Your task to perform on an android device: Go to location settings Image 0: 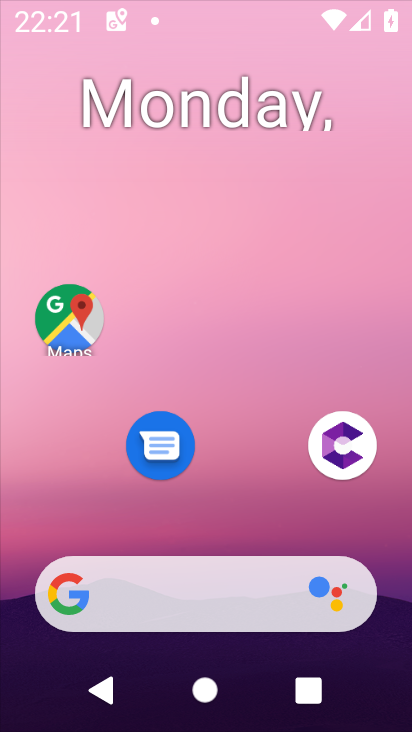
Step 0: press home button
Your task to perform on an android device: Go to location settings Image 1: 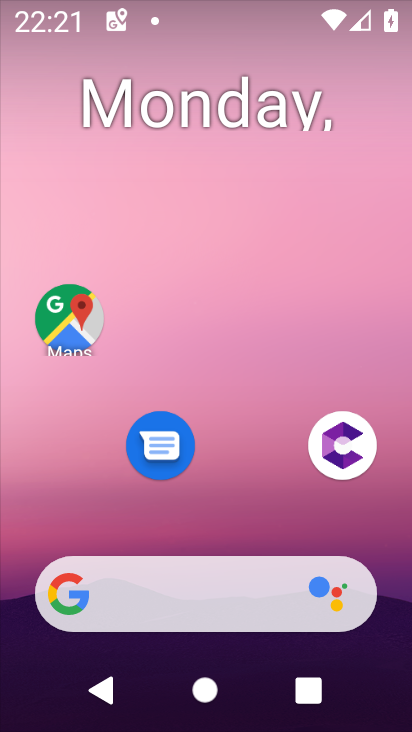
Step 1: drag from (225, 541) to (232, 181)
Your task to perform on an android device: Go to location settings Image 2: 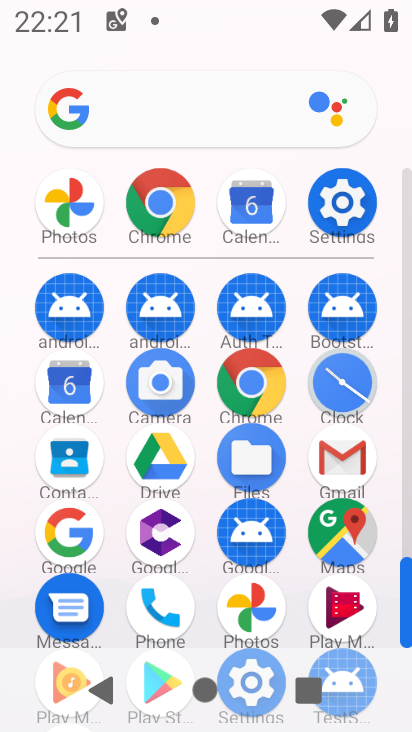
Step 2: click (340, 213)
Your task to perform on an android device: Go to location settings Image 3: 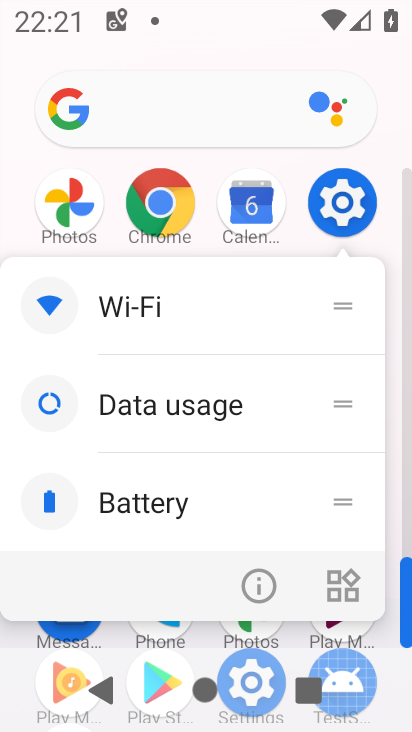
Step 3: click (340, 214)
Your task to perform on an android device: Go to location settings Image 4: 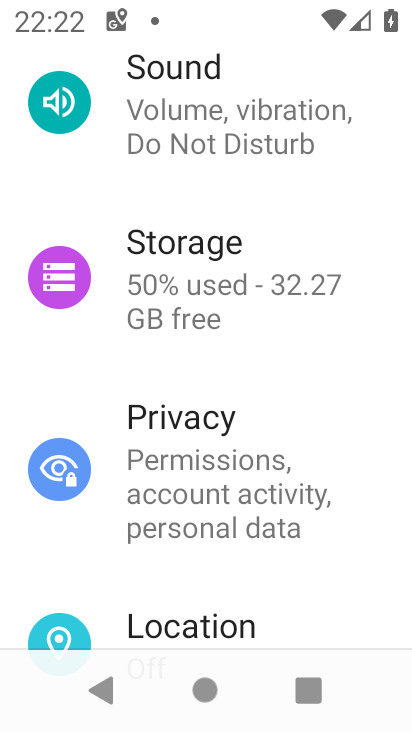
Step 4: click (201, 624)
Your task to perform on an android device: Go to location settings Image 5: 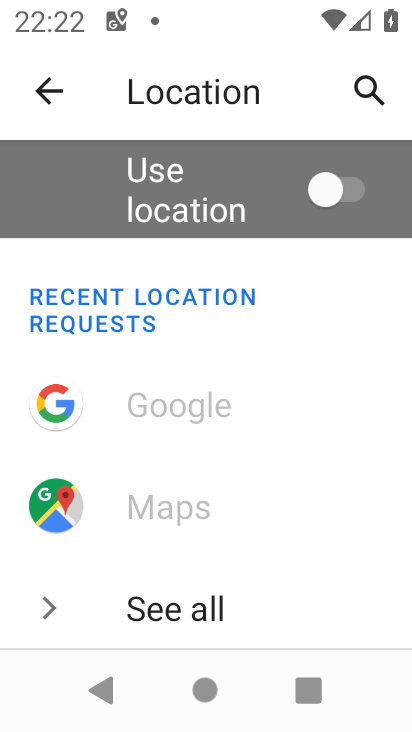
Step 5: click (318, 190)
Your task to perform on an android device: Go to location settings Image 6: 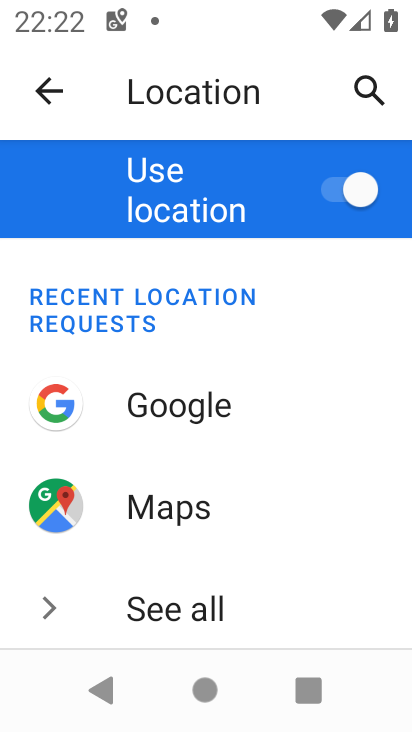
Step 6: task complete